Your task to perform on an android device: Do I have any events tomorrow? Image 0: 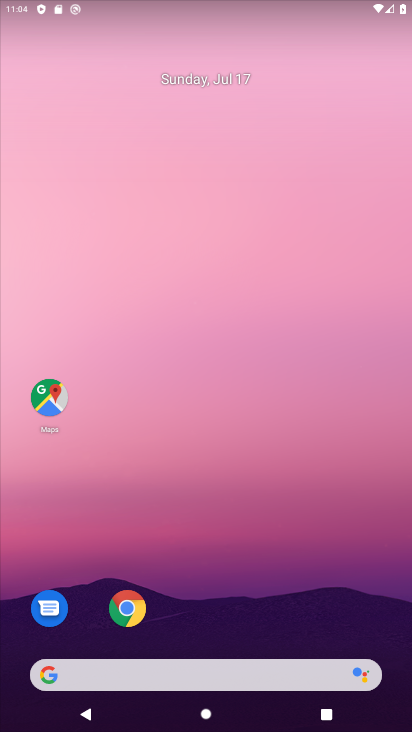
Step 0: click (261, 607)
Your task to perform on an android device: Do I have any events tomorrow? Image 1: 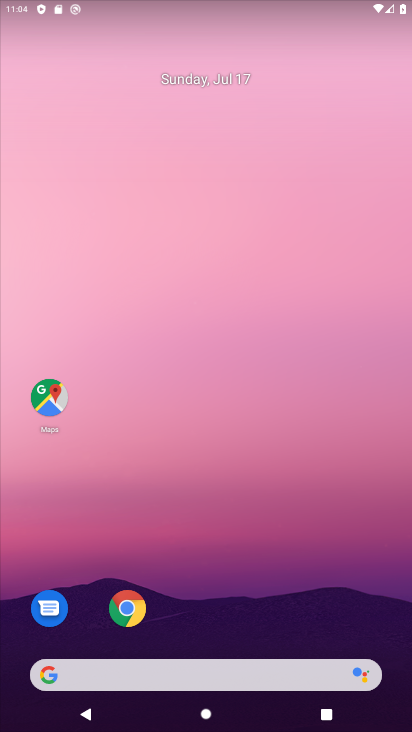
Step 1: drag from (261, 607) to (261, 442)
Your task to perform on an android device: Do I have any events tomorrow? Image 2: 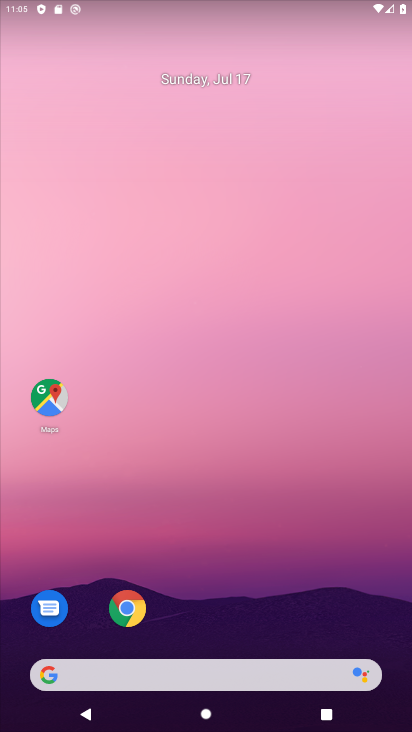
Step 2: drag from (248, 612) to (344, 15)
Your task to perform on an android device: Do I have any events tomorrow? Image 3: 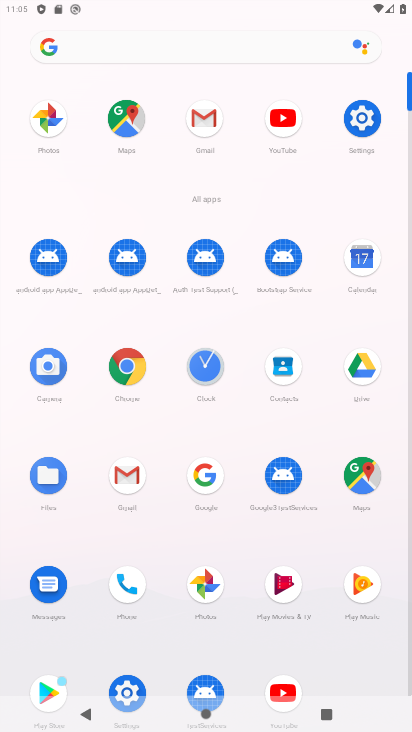
Step 3: click (371, 254)
Your task to perform on an android device: Do I have any events tomorrow? Image 4: 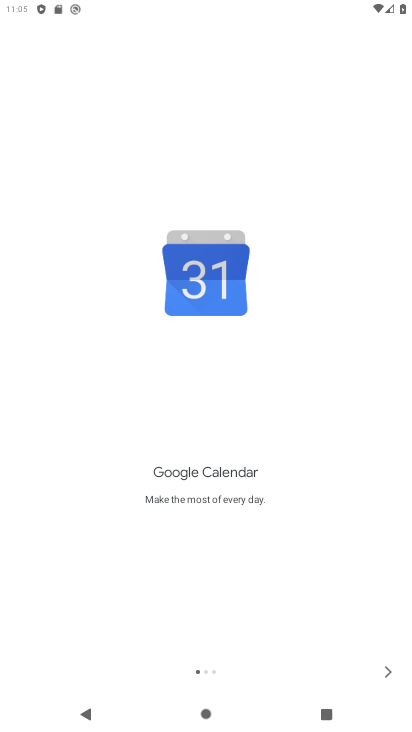
Step 4: click (390, 675)
Your task to perform on an android device: Do I have any events tomorrow? Image 5: 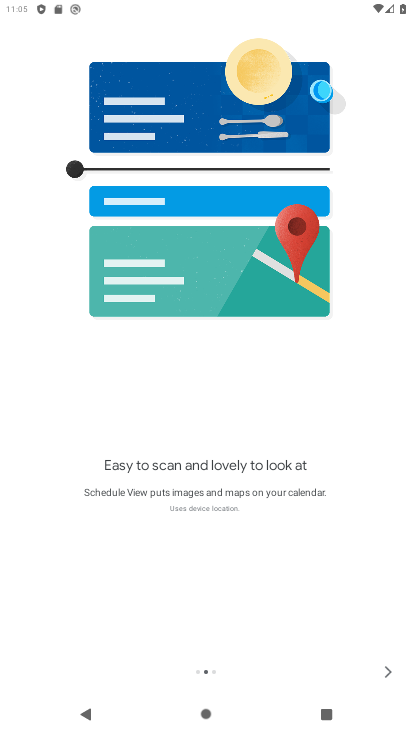
Step 5: click (390, 675)
Your task to perform on an android device: Do I have any events tomorrow? Image 6: 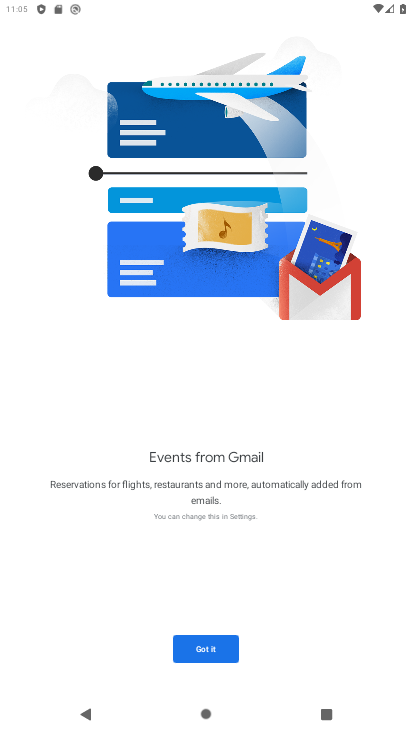
Step 6: click (217, 645)
Your task to perform on an android device: Do I have any events tomorrow? Image 7: 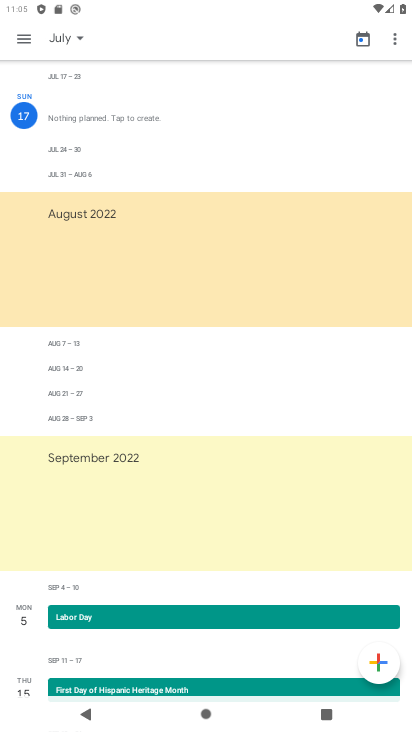
Step 7: click (75, 42)
Your task to perform on an android device: Do I have any events tomorrow? Image 8: 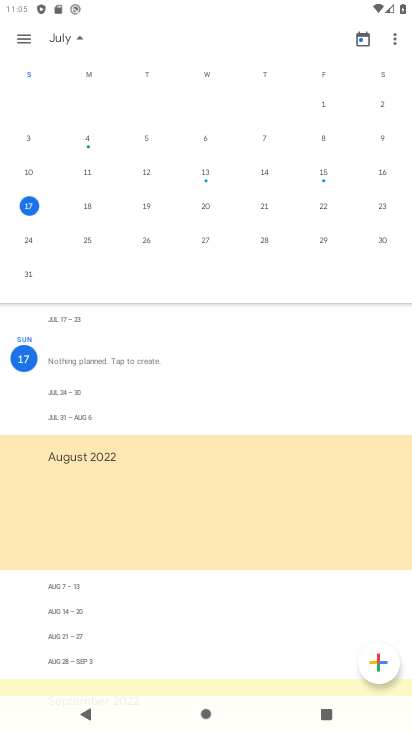
Step 8: click (83, 204)
Your task to perform on an android device: Do I have any events tomorrow? Image 9: 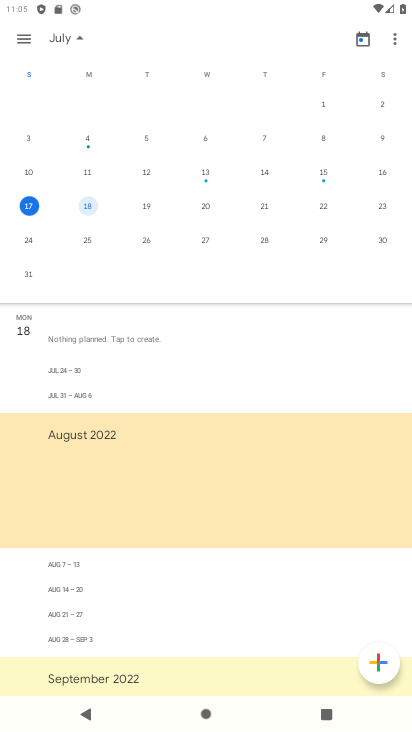
Step 9: task complete